Your task to perform on an android device: check the backup settings in the google photos Image 0: 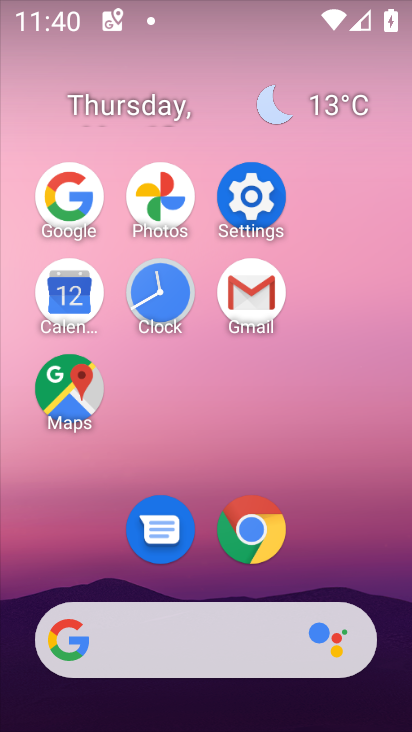
Step 0: click (144, 204)
Your task to perform on an android device: check the backup settings in the google photos Image 1: 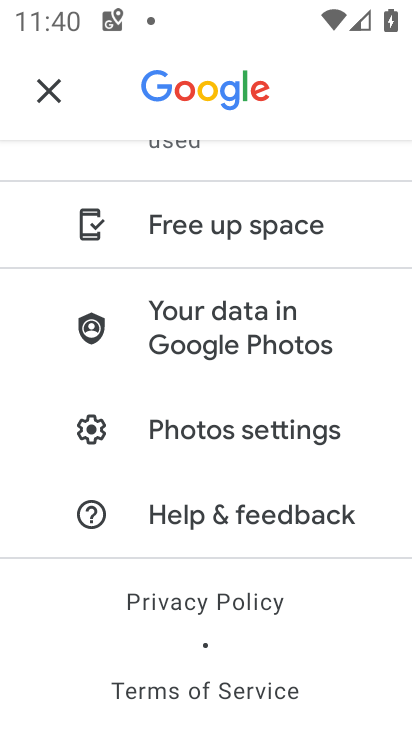
Step 1: drag from (289, 250) to (289, 563)
Your task to perform on an android device: check the backup settings in the google photos Image 2: 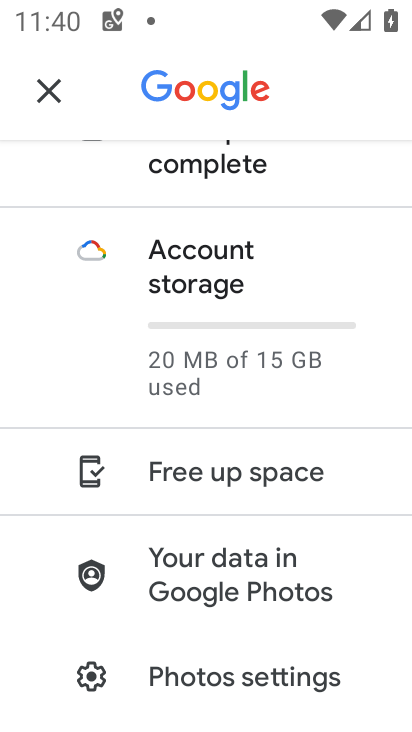
Step 2: click (272, 669)
Your task to perform on an android device: check the backup settings in the google photos Image 3: 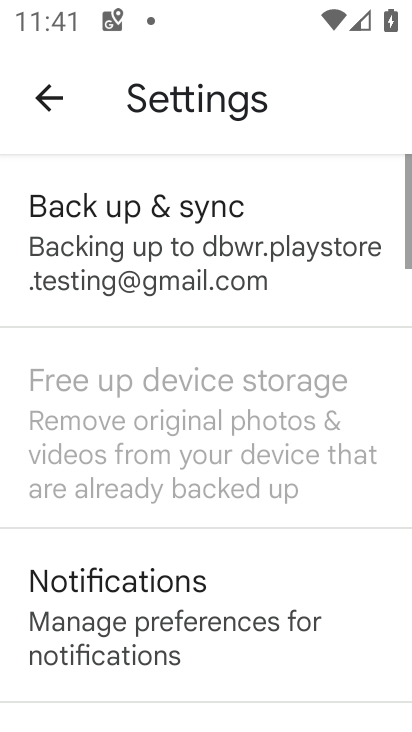
Step 3: click (214, 289)
Your task to perform on an android device: check the backup settings in the google photos Image 4: 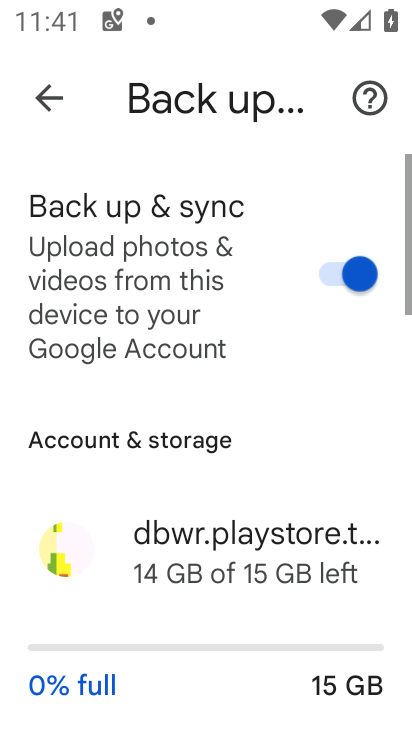
Step 4: task complete